Your task to perform on an android device: change text size in settings app Image 0: 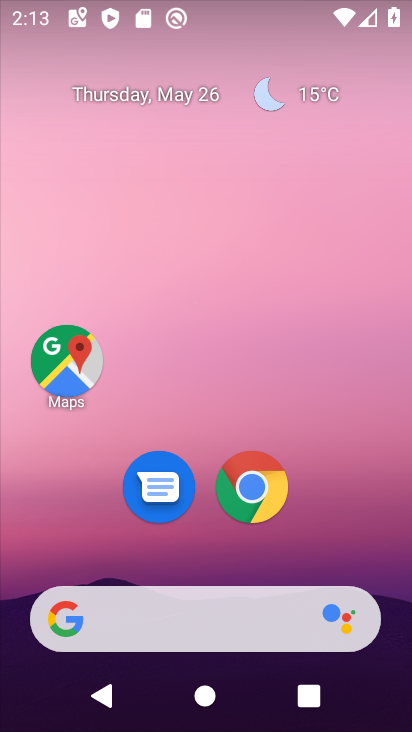
Step 0: drag from (199, 511) to (199, 191)
Your task to perform on an android device: change text size in settings app Image 1: 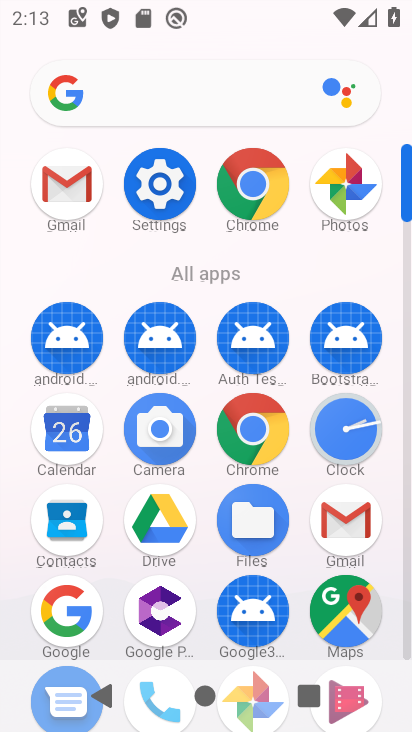
Step 1: click (187, 194)
Your task to perform on an android device: change text size in settings app Image 2: 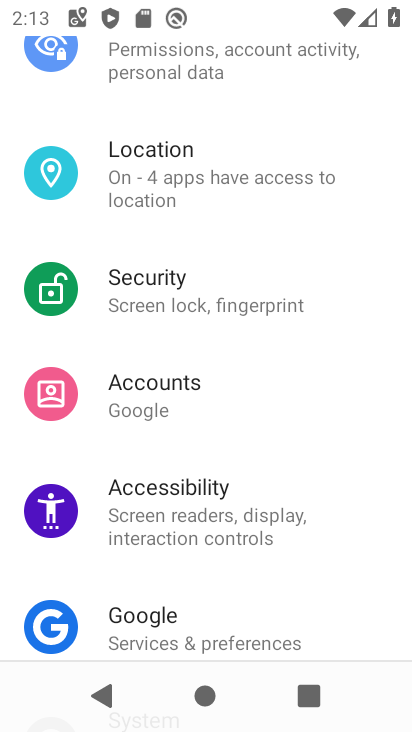
Step 2: drag from (202, 243) to (240, 499)
Your task to perform on an android device: change text size in settings app Image 3: 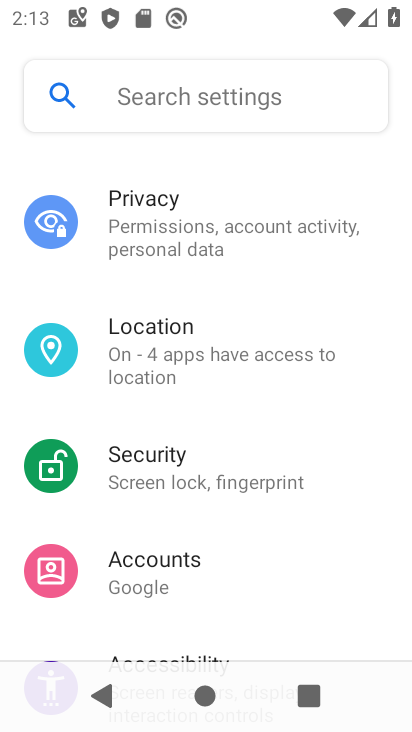
Step 3: drag from (233, 512) to (244, 293)
Your task to perform on an android device: change text size in settings app Image 4: 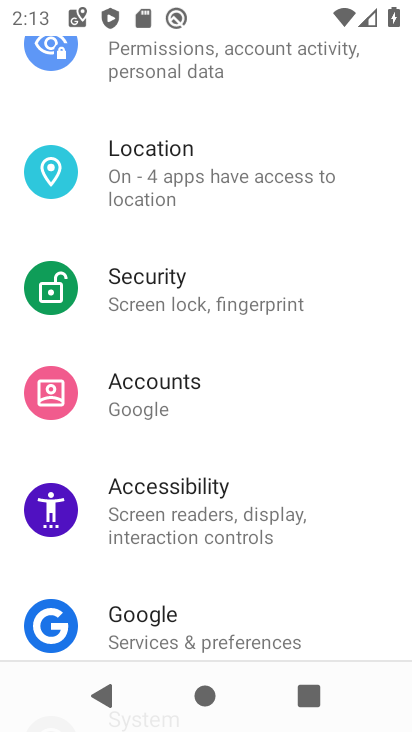
Step 4: drag from (244, 550) to (241, 375)
Your task to perform on an android device: change text size in settings app Image 5: 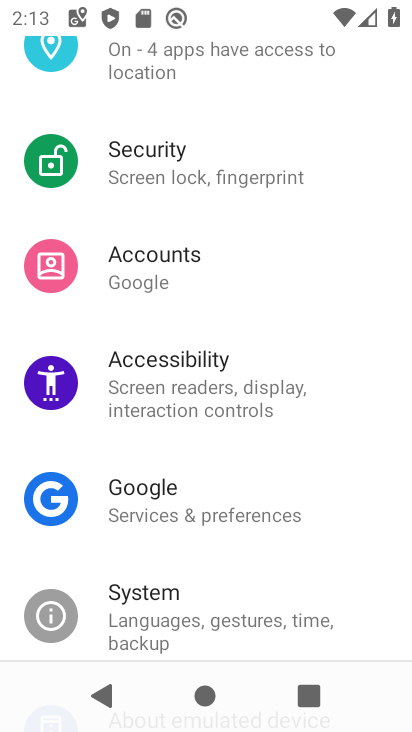
Step 5: drag from (216, 217) to (215, 566)
Your task to perform on an android device: change text size in settings app Image 6: 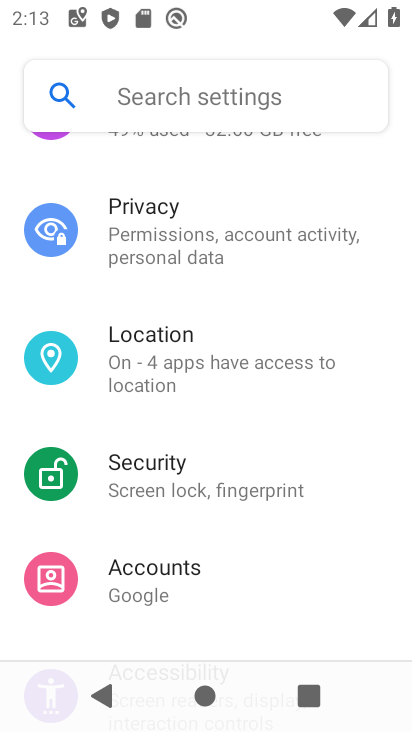
Step 6: drag from (208, 242) to (203, 500)
Your task to perform on an android device: change text size in settings app Image 7: 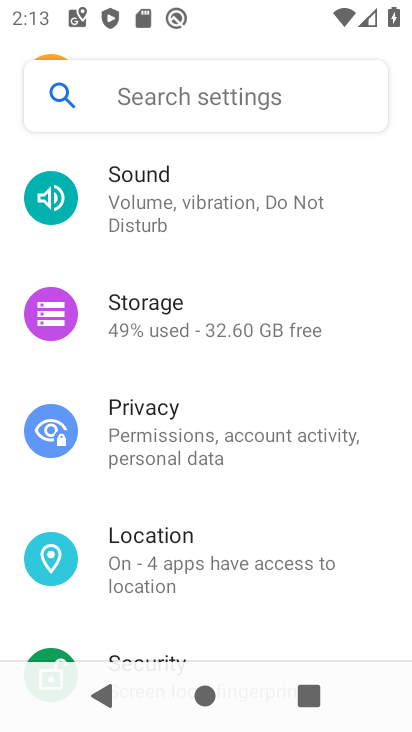
Step 7: drag from (238, 263) to (238, 544)
Your task to perform on an android device: change text size in settings app Image 8: 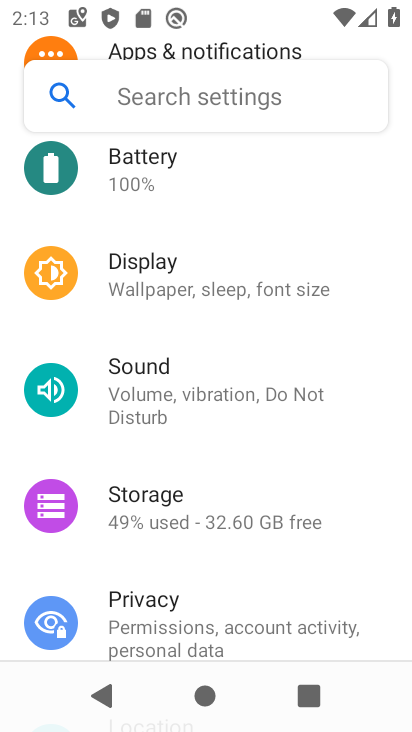
Step 8: click (197, 292)
Your task to perform on an android device: change text size in settings app Image 9: 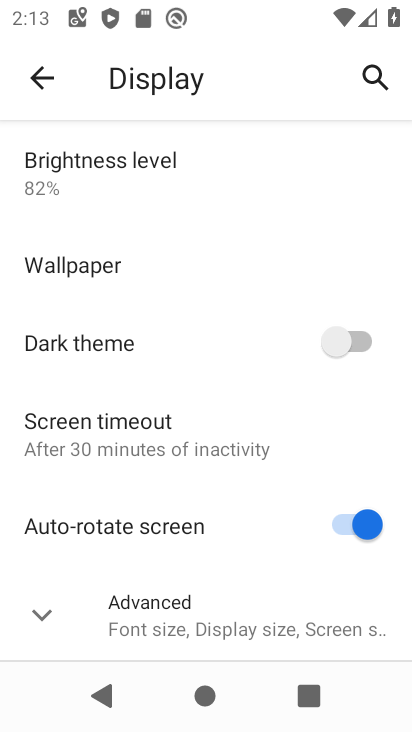
Step 9: click (183, 629)
Your task to perform on an android device: change text size in settings app Image 10: 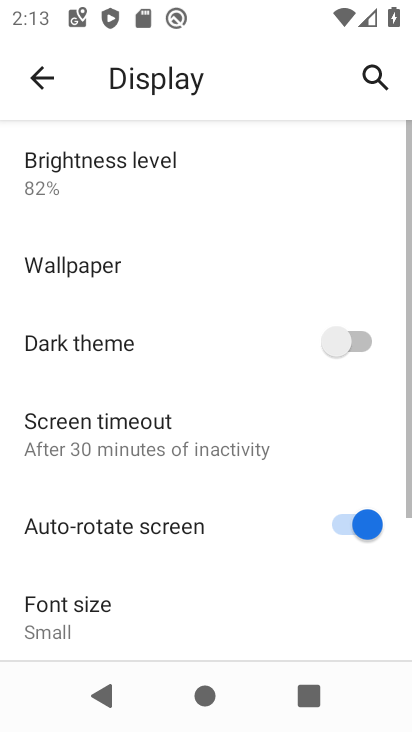
Step 10: drag from (183, 588) to (188, 467)
Your task to perform on an android device: change text size in settings app Image 11: 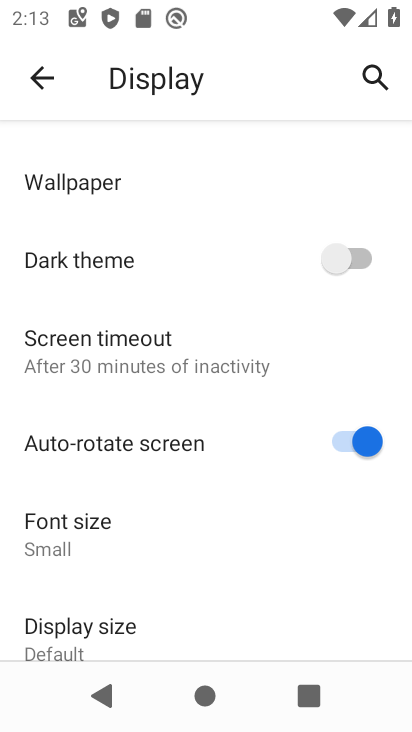
Step 11: drag from (139, 605) to (160, 452)
Your task to perform on an android device: change text size in settings app Image 12: 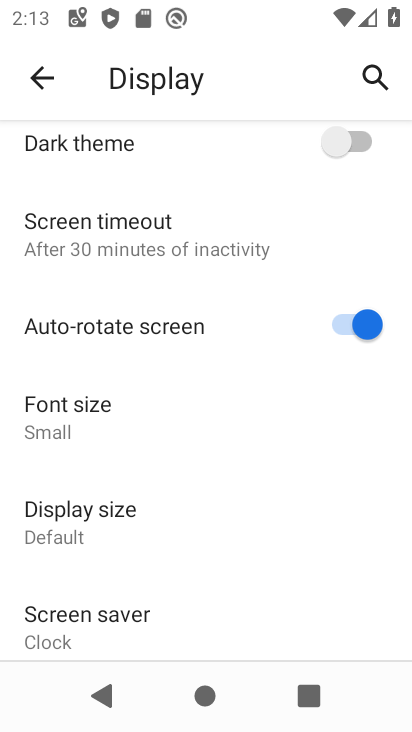
Step 12: click (73, 406)
Your task to perform on an android device: change text size in settings app Image 13: 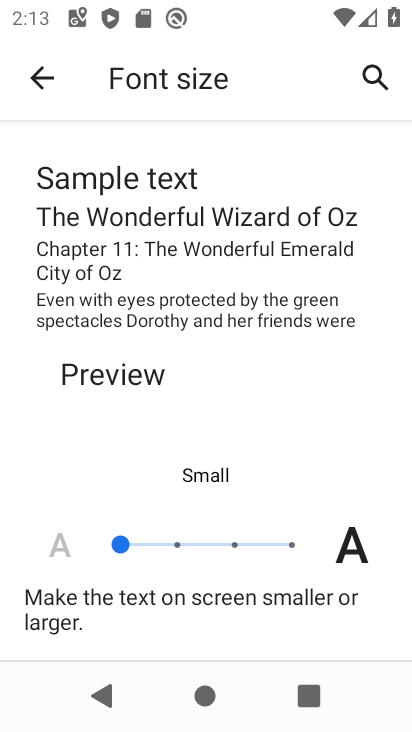
Step 13: click (168, 542)
Your task to perform on an android device: change text size in settings app Image 14: 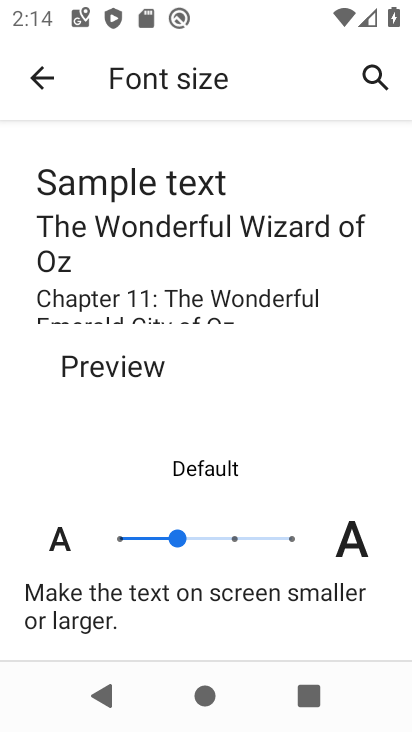
Step 14: task complete